Your task to perform on an android device: toggle sleep mode Image 0: 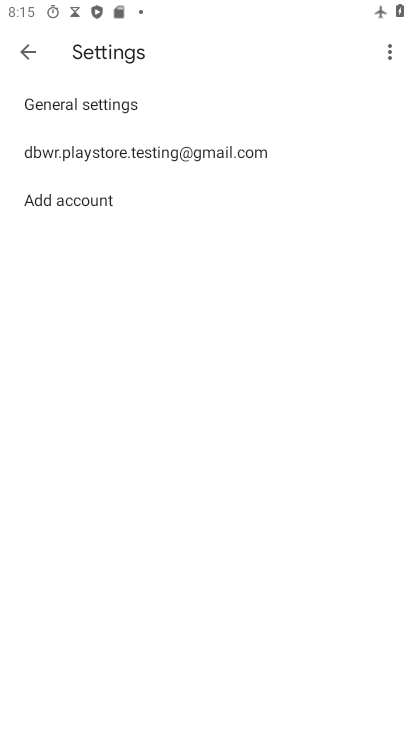
Step 0: press home button
Your task to perform on an android device: toggle sleep mode Image 1: 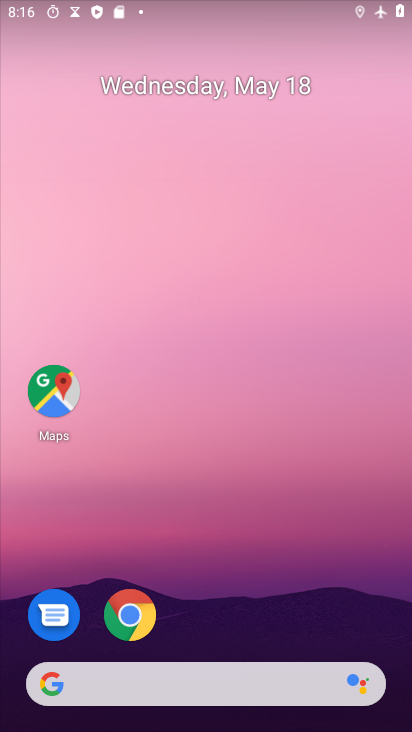
Step 1: drag from (280, 609) to (308, 76)
Your task to perform on an android device: toggle sleep mode Image 2: 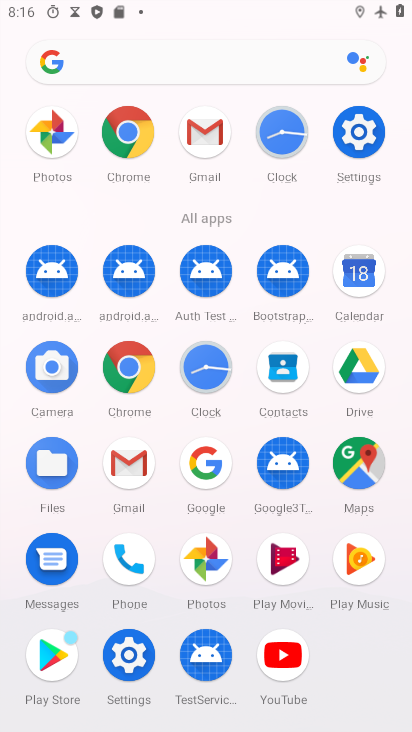
Step 2: click (350, 138)
Your task to perform on an android device: toggle sleep mode Image 3: 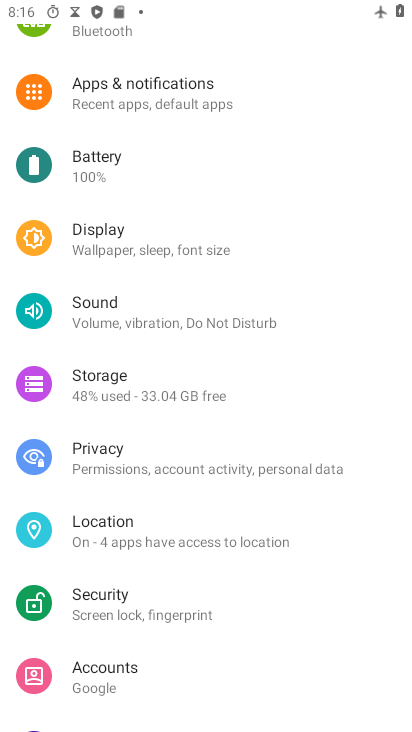
Step 3: click (113, 232)
Your task to perform on an android device: toggle sleep mode Image 4: 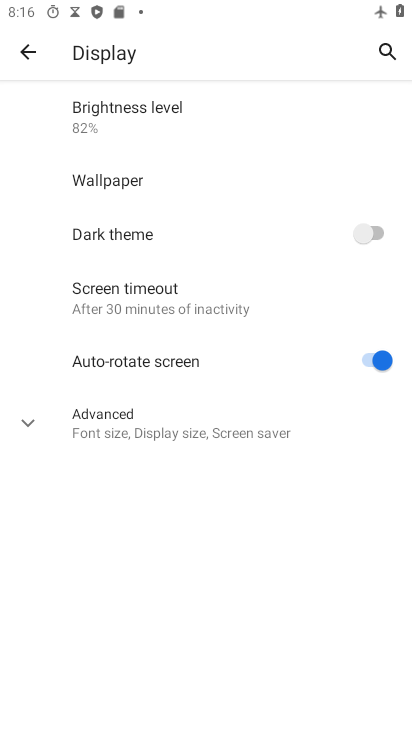
Step 4: click (157, 426)
Your task to perform on an android device: toggle sleep mode Image 5: 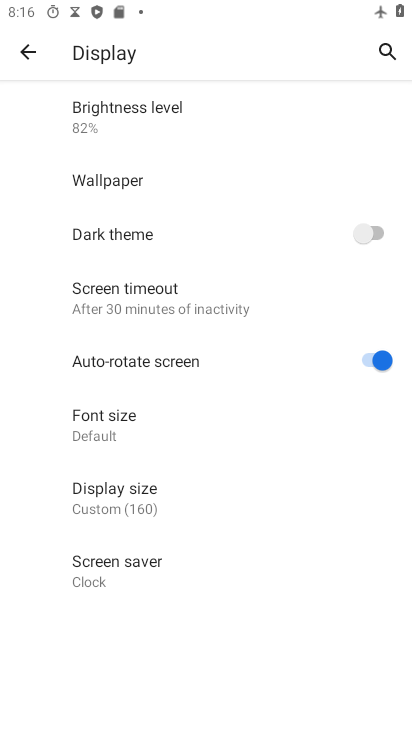
Step 5: task complete